Your task to perform on an android device: set the timer Image 0: 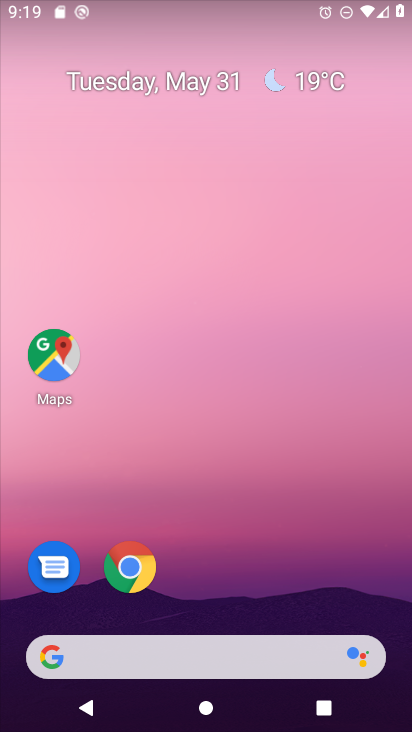
Step 0: drag from (253, 630) to (272, 109)
Your task to perform on an android device: set the timer Image 1: 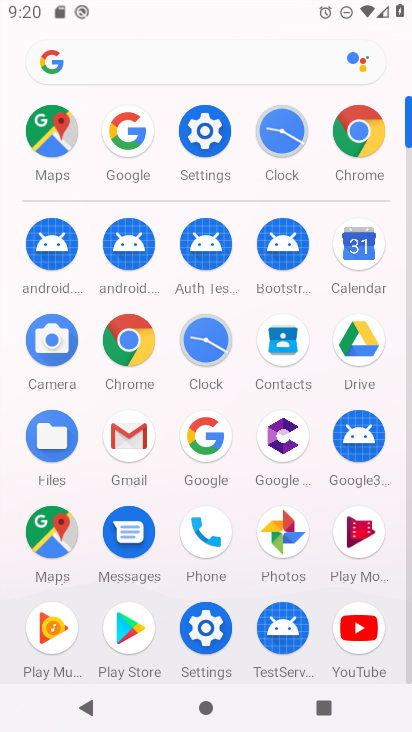
Step 1: click (292, 138)
Your task to perform on an android device: set the timer Image 2: 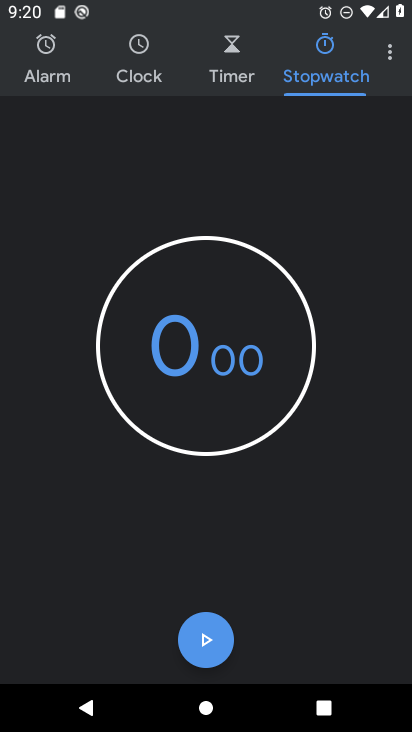
Step 2: click (221, 57)
Your task to perform on an android device: set the timer Image 3: 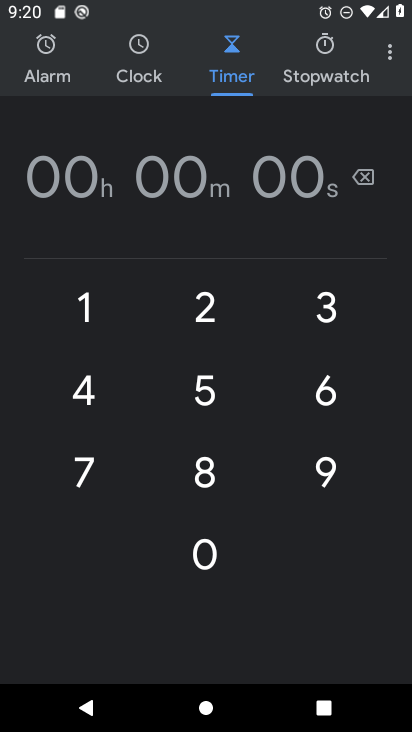
Step 3: click (193, 559)
Your task to perform on an android device: set the timer Image 4: 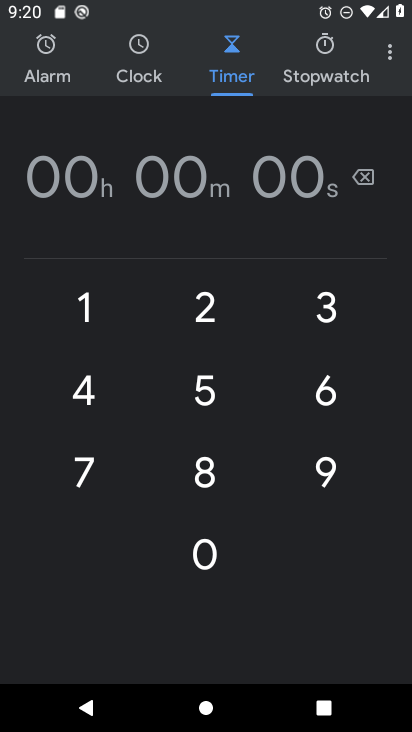
Step 4: click (205, 399)
Your task to perform on an android device: set the timer Image 5: 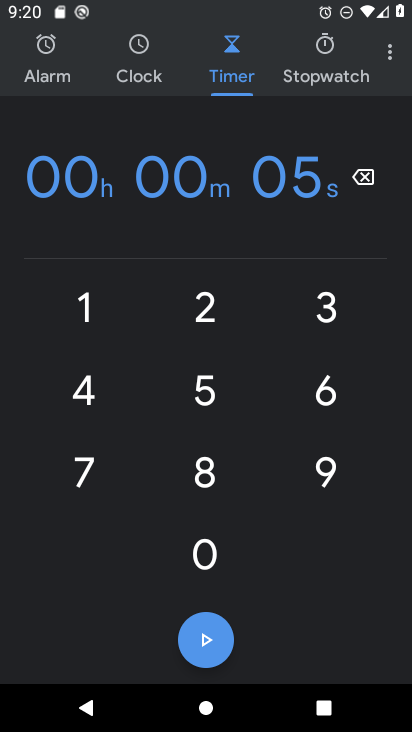
Step 5: click (205, 552)
Your task to perform on an android device: set the timer Image 6: 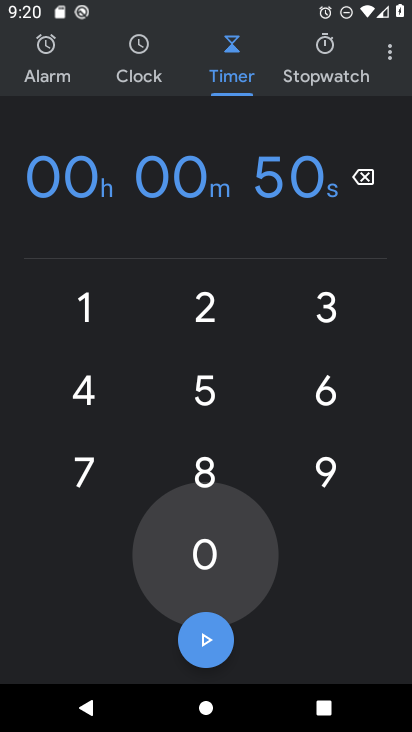
Step 6: click (205, 552)
Your task to perform on an android device: set the timer Image 7: 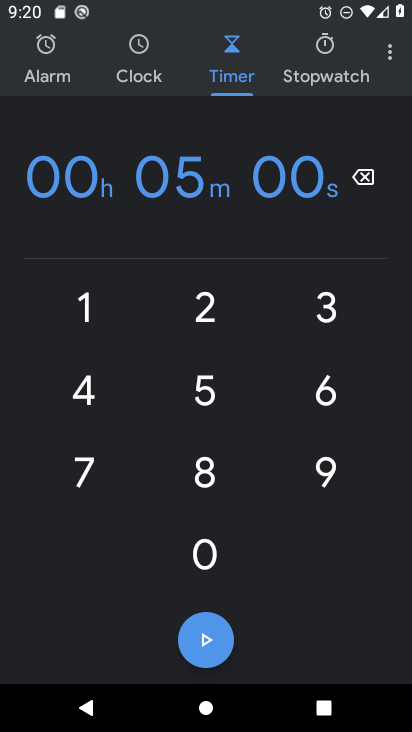
Step 7: click (225, 634)
Your task to perform on an android device: set the timer Image 8: 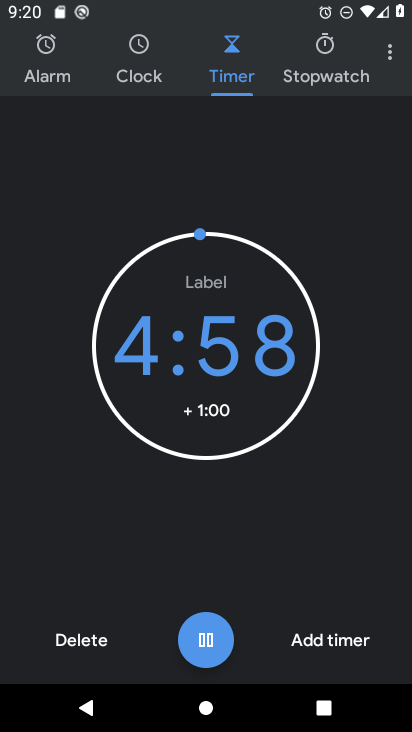
Step 8: task complete